Your task to perform on an android device: star an email in the gmail app Image 0: 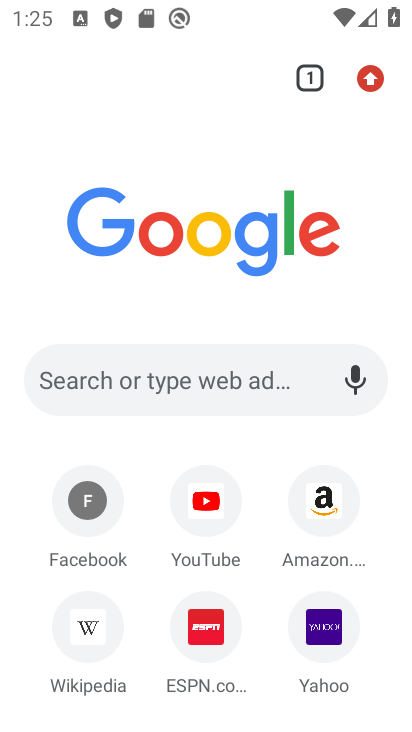
Step 0: press home button
Your task to perform on an android device: star an email in the gmail app Image 1: 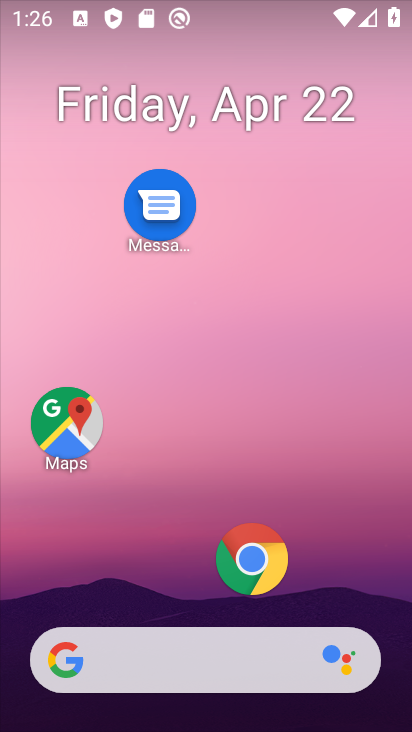
Step 1: drag from (169, 597) to (311, 161)
Your task to perform on an android device: star an email in the gmail app Image 2: 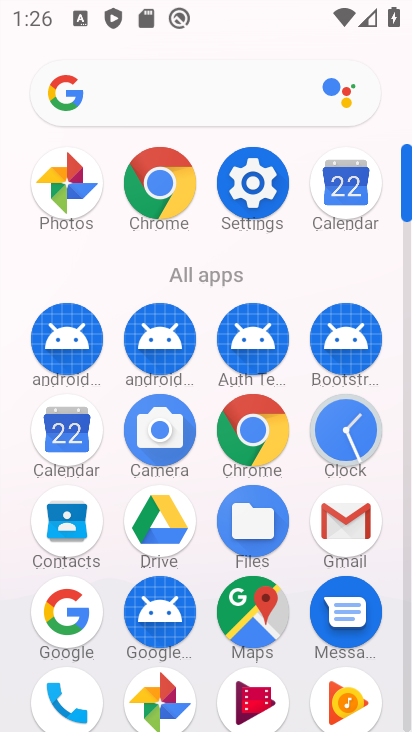
Step 2: click (340, 529)
Your task to perform on an android device: star an email in the gmail app Image 3: 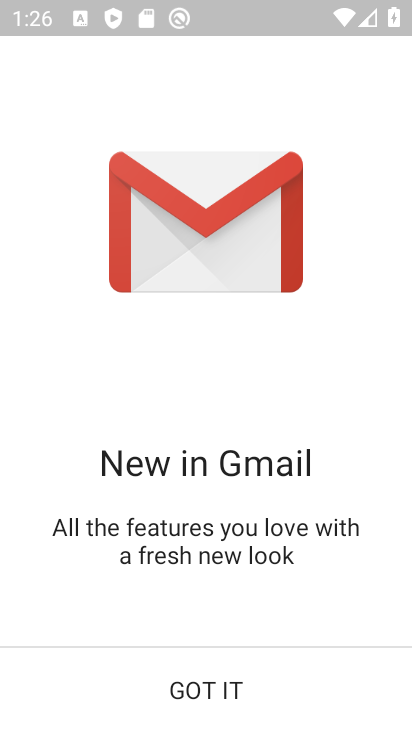
Step 3: click (215, 692)
Your task to perform on an android device: star an email in the gmail app Image 4: 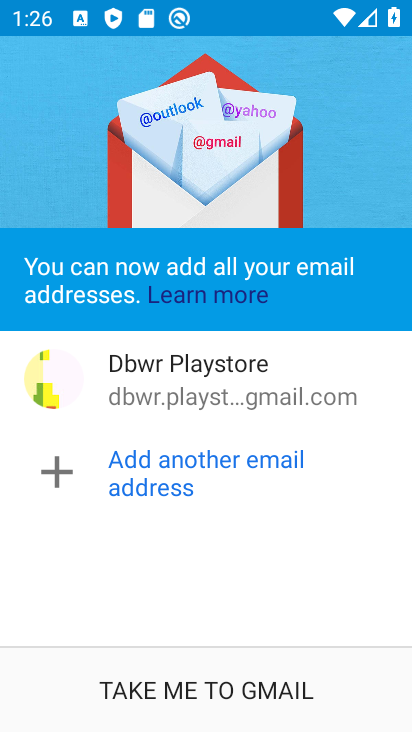
Step 4: click (215, 692)
Your task to perform on an android device: star an email in the gmail app Image 5: 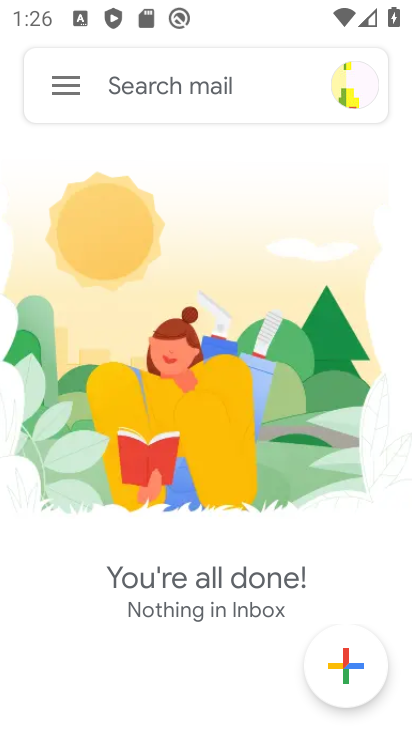
Step 5: click (69, 74)
Your task to perform on an android device: star an email in the gmail app Image 6: 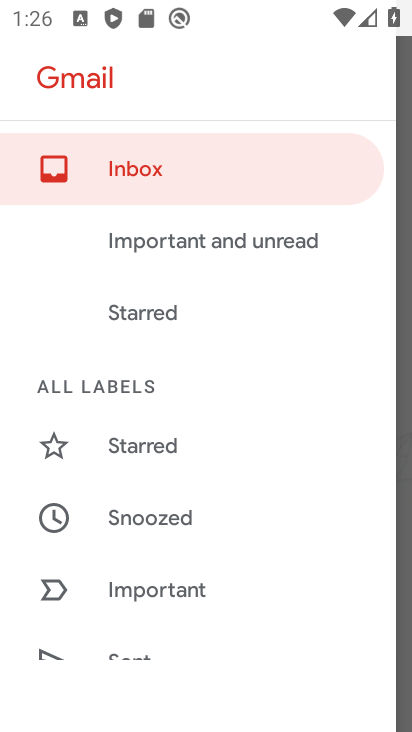
Step 6: click (113, 445)
Your task to perform on an android device: star an email in the gmail app Image 7: 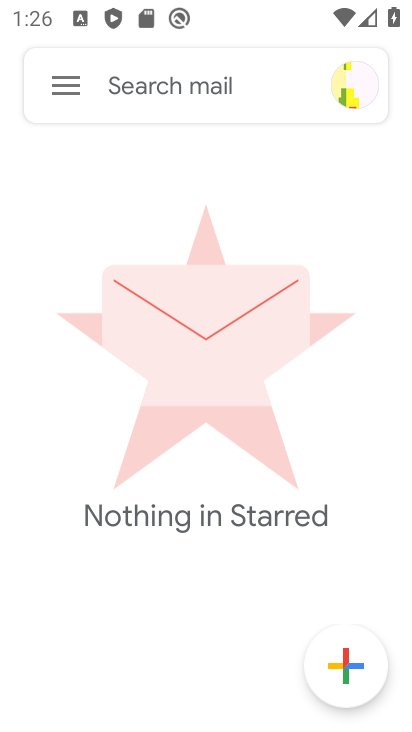
Step 7: task complete